Your task to perform on an android device: change the clock display to show seconds Image 0: 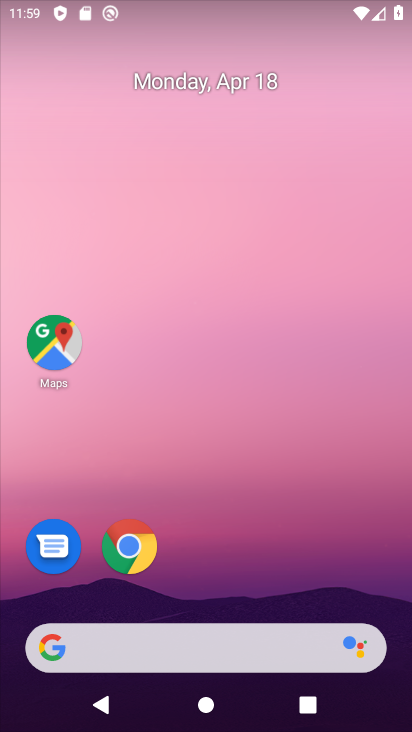
Step 0: drag from (206, 601) to (229, 143)
Your task to perform on an android device: change the clock display to show seconds Image 1: 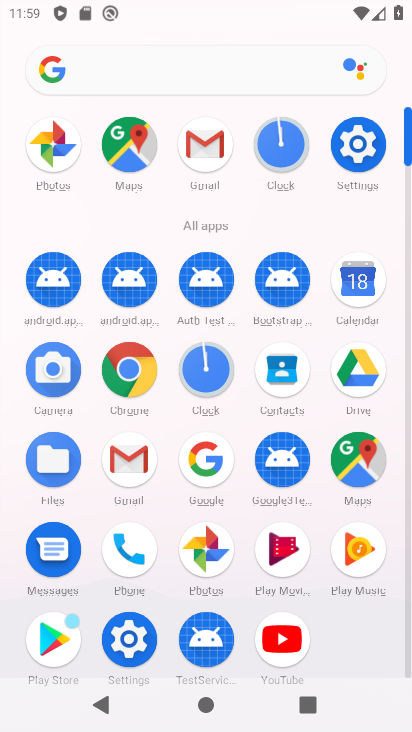
Step 1: click (204, 367)
Your task to perform on an android device: change the clock display to show seconds Image 2: 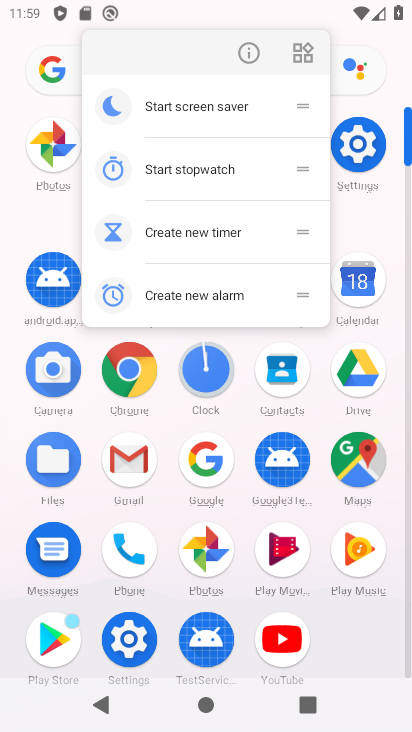
Step 2: click (199, 372)
Your task to perform on an android device: change the clock display to show seconds Image 3: 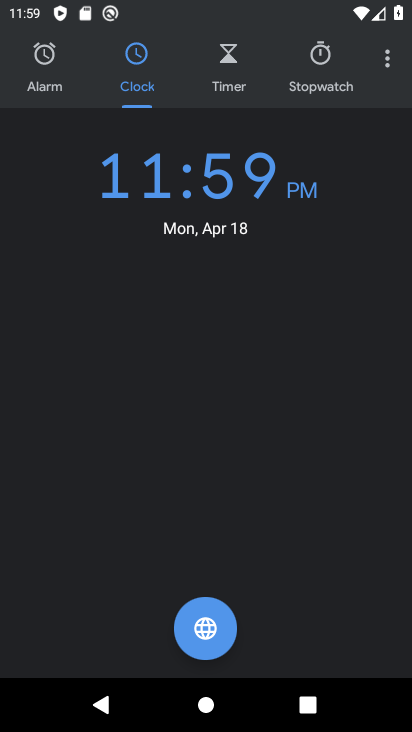
Step 3: click (374, 59)
Your task to perform on an android device: change the clock display to show seconds Image 4: 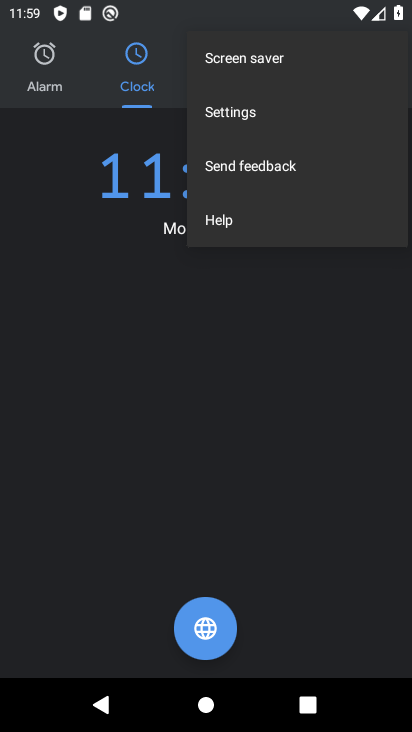
Step 4: click (259, 115)
Your task to perform on an android device: change the clock display to show seconds Image 5: 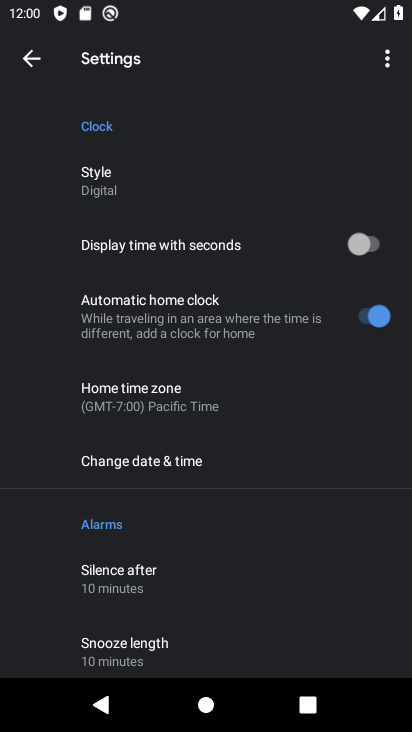
Step 5: click (367, 240)
Your task to perform on an android device: change the clock display to show seconds Image 6: 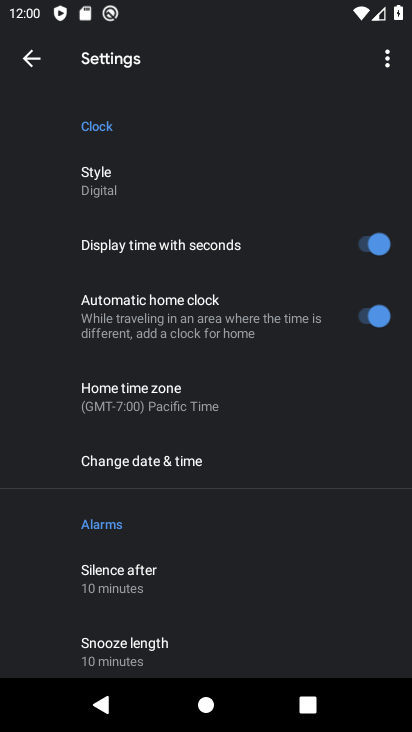
Step 6: task complete